Your task to perform on an android device: delete browsing data in the chrome app Image 0: 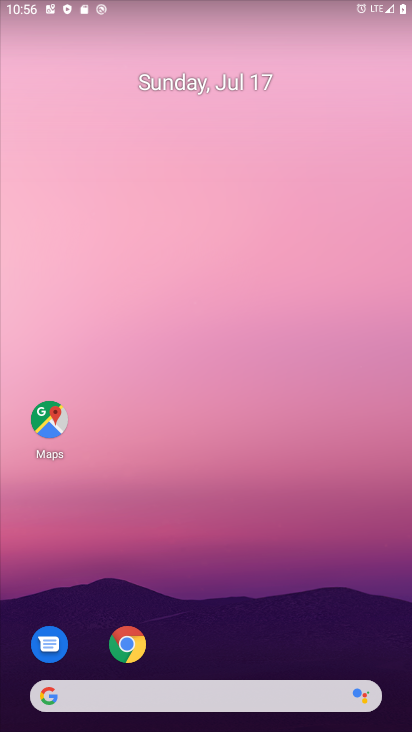
Step 0: drag from (303, 549) to (309, 23)
Your task to perform on an android device: delete browsing data in the chrome app Image 1: 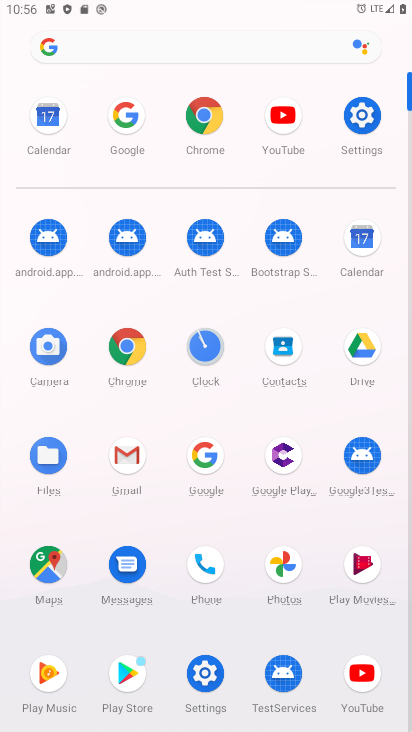
Step 1: click (195, 119)
Your task to perform on an android device: delete browsing data in the chrome app Image 2: 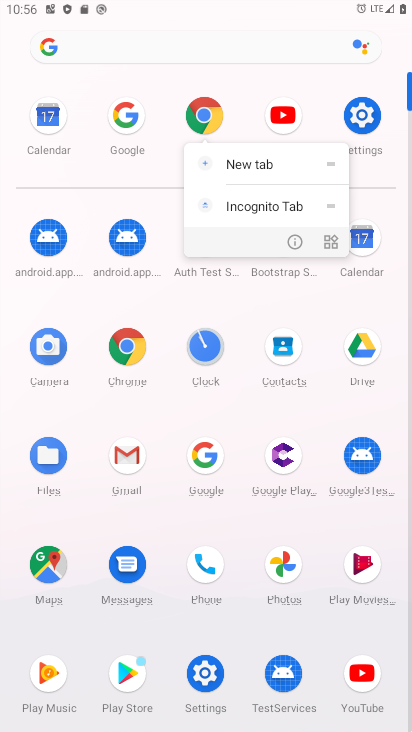
Step 2: click (201, 105)
Your task to perform on an android device: delete browsing data in the chrome app Image 3: 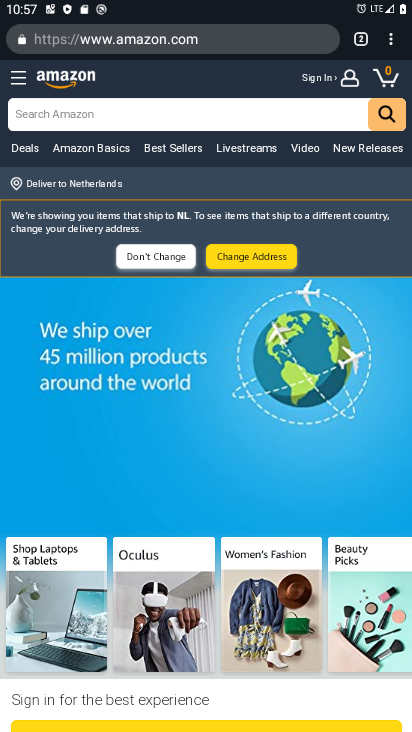
Step 3: drag from (387, 51) to (280, 218)
Your task to perform on an android device: delete browsing data in the chrome app Image 4: 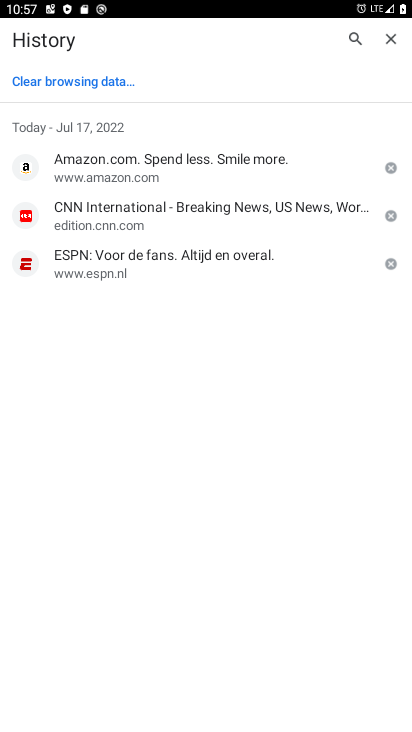
Step 4: click (37, 68)
Your task to perform on an android device: delete browsing data in the chrome app Image 5: 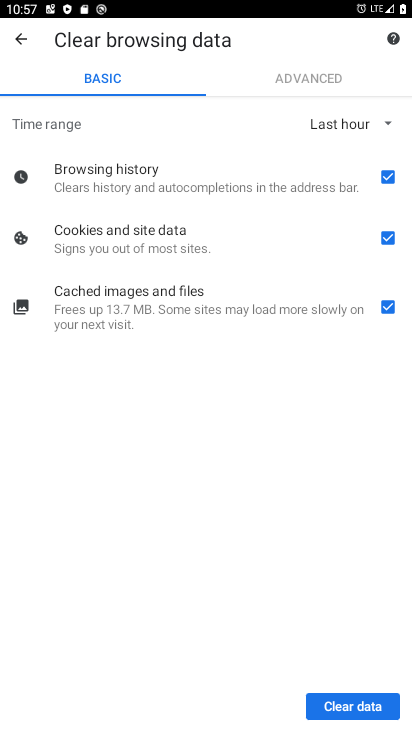
Step 5: click (366, 704)
Your task to perform on an android device: delete browsing data in the chrome app Image 6: 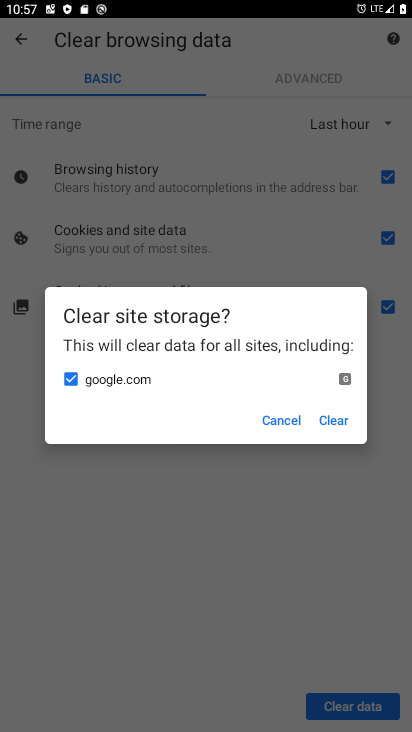
Step 6: click (329, 430)
Your task to perform on an android device: delete browsing data in the chrome app Image 7: 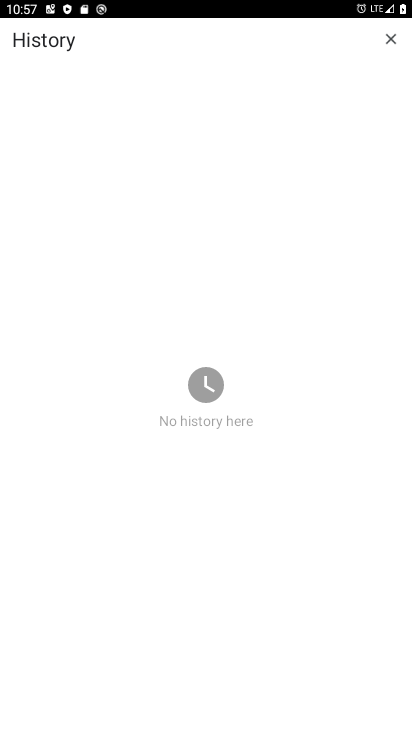
Step 7: task complete